Your task to perform on an android device: toggle data saver in the chrome app Image 0: 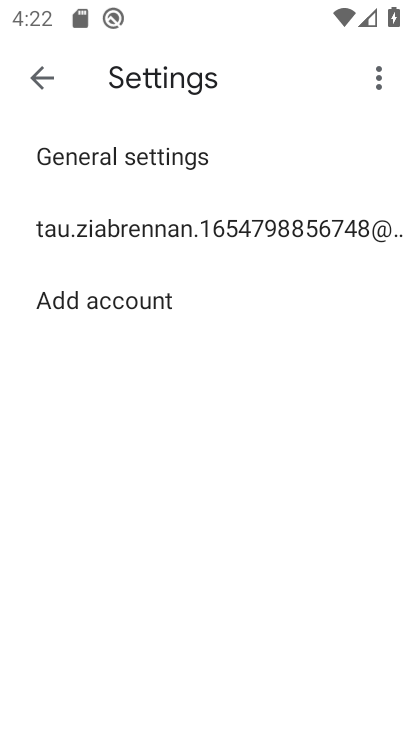
Step 0: press home button
Your task to perform on an android device: toggle data saver in the chrome app Image 1: 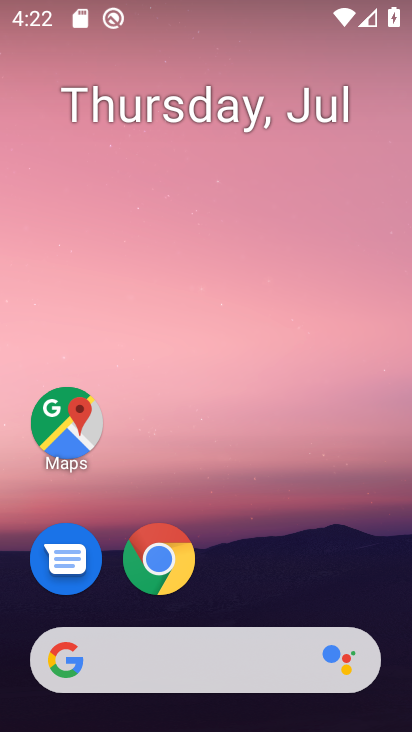
Step 1: drag from (276, 614) to (327, 197)
Your task to perform on an android device: toggle data saver in the chrome app Image 2: 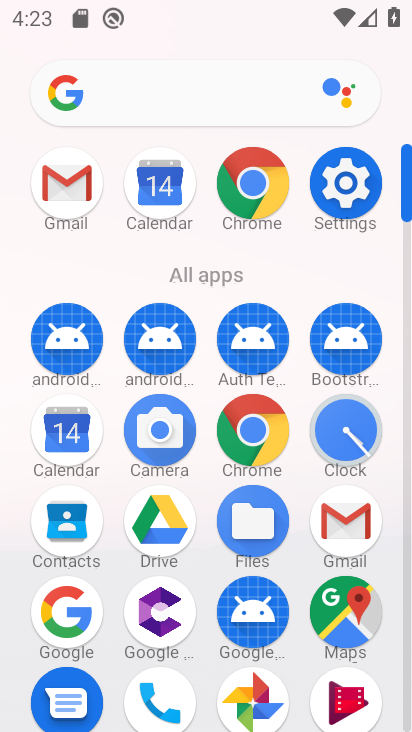
Step 2: click (257, 428)
Your task to perform on an android device: toggle data saver in the chrome app Image 3: 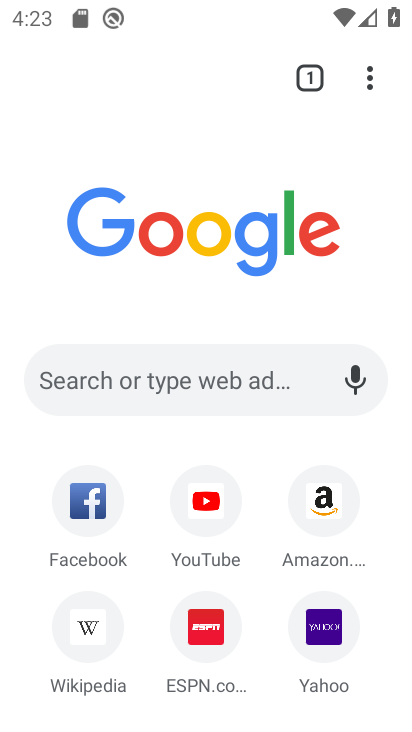
Step 3: click (367, 86)
Your task to perform on an android device: toggle data saver in the chrome app Image 4: 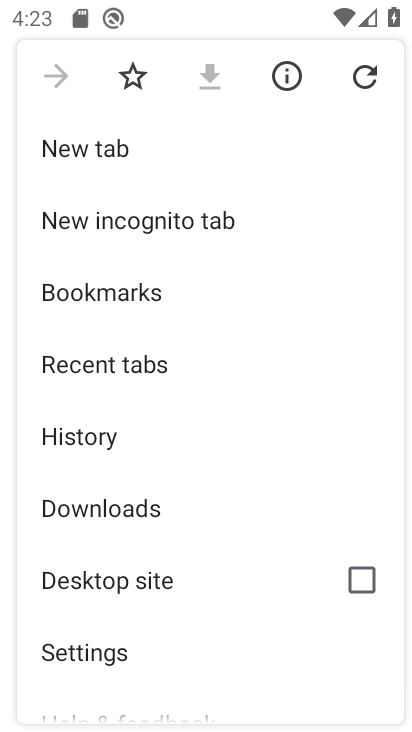
Step 4: drag from (174, 533) to (216, 292)
Your task to perform on an android device: toggle data saver in the chrome app Image 5: 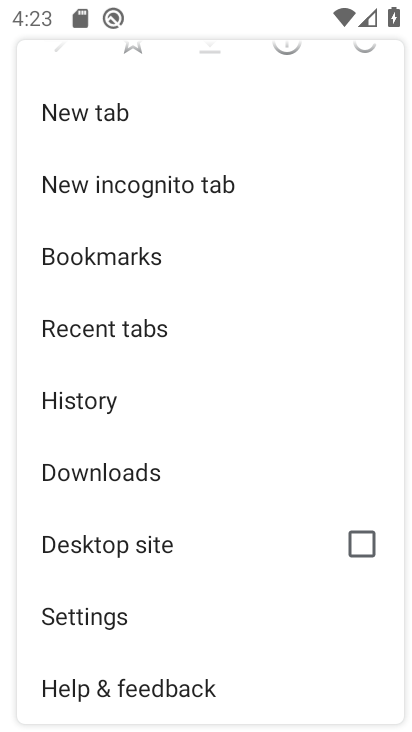
Step 5: click (110, 615)
Your task to perform on an android device: toggle data saver in the chrome app Image 6: 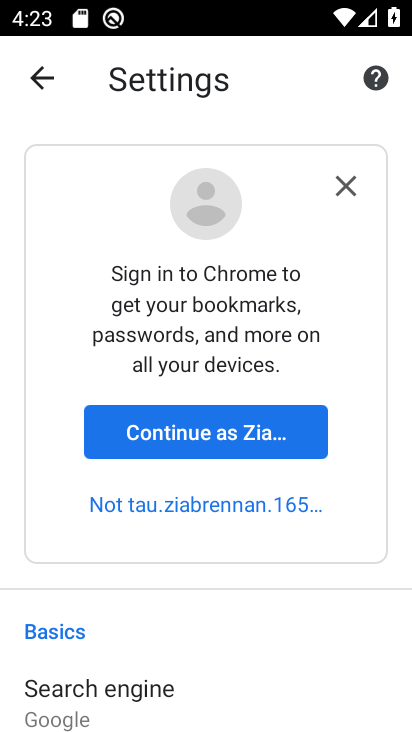
Step 6: drag from (133, 643) to (197, 341)
Your task to perform on an android device: toggle data saver in the chrome app Image 7: 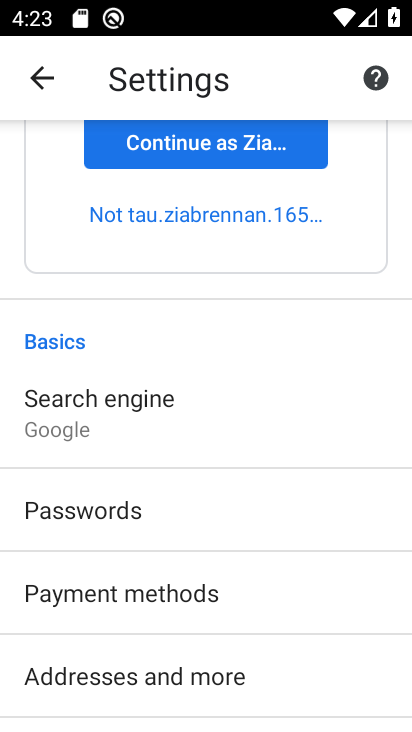
Step 7: drag from (204, 612) to (252, 438)
Your task to perform on an android device: toggle data saver in the chrome app Image 8: 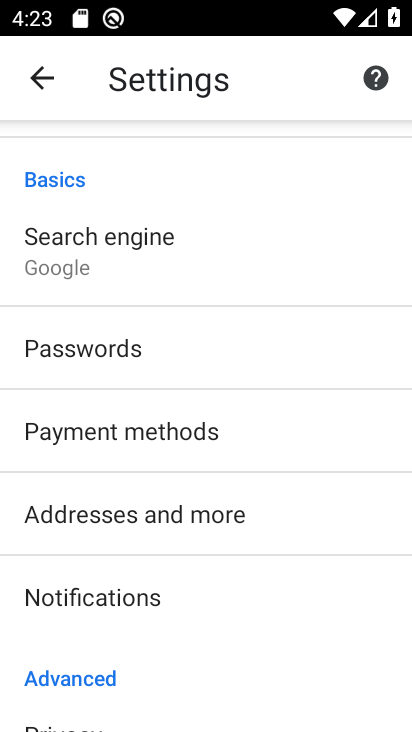
Step 8: drag from (180, 594) to (226, 405)
Your task to perform on an android device: toggle data saver in the chrome app Image 9: 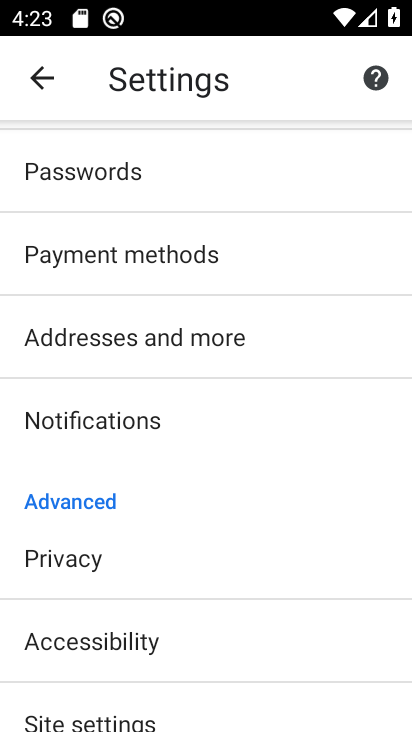
Step 9: drag from (178, 580) to (217, 340)
Your task to perform on an android device: toggle data saver in the chrome app Image 10: 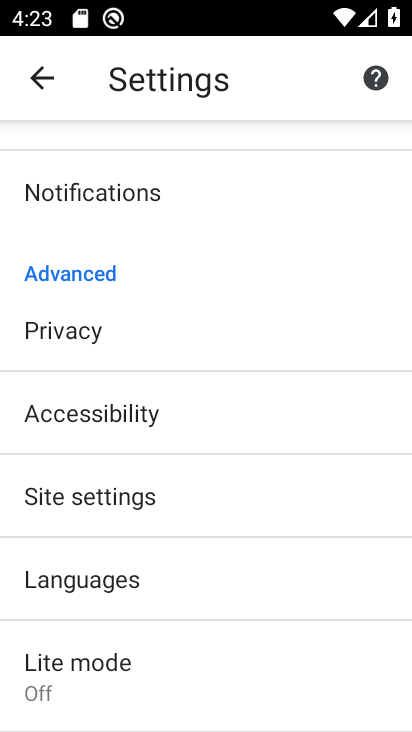
Step 10: click (110, 677)
Your task to perform on an android device: toggle data saver in the chrome app Image 11: 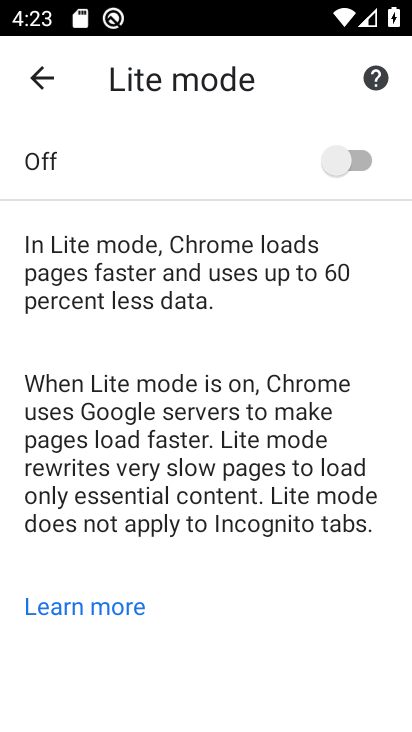
Step 11: click (345, 147)
Your task to perform on an android device: toggle data saver in the chrome app Image 12: 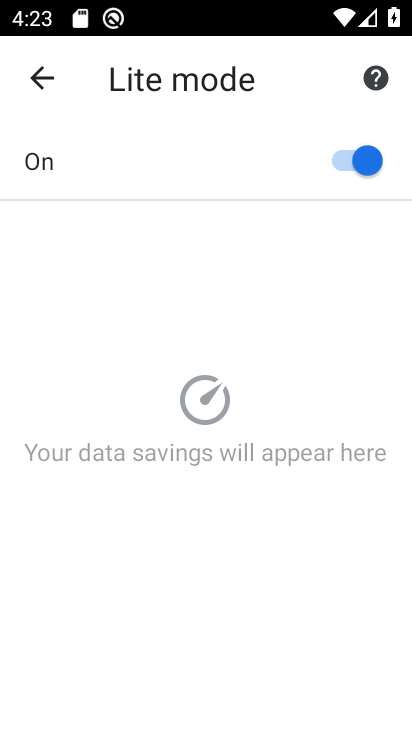
Step 12: task complete